Your task to perform on an android device: Open CNN.com Image 0: 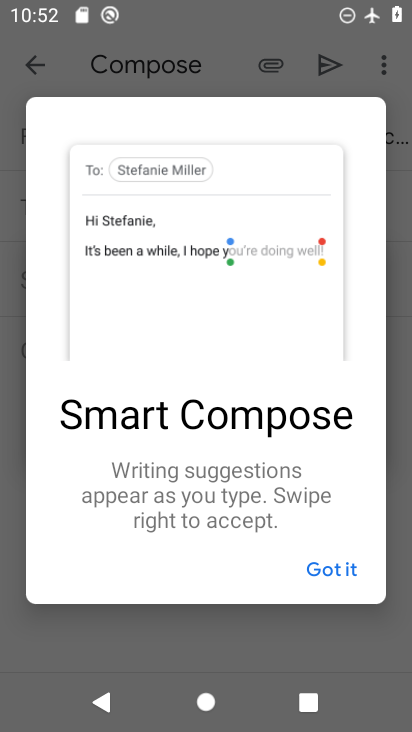
Step 0: press home button
Your task to perform on an android device: Open CNN.com Image 1: 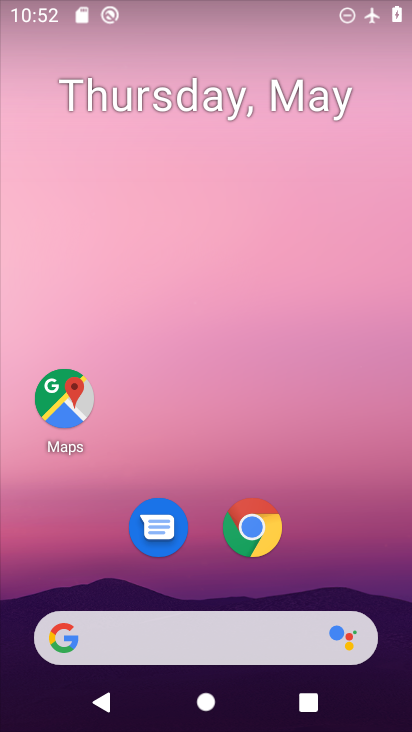
Step 1: click (259, 521)
Your task to perform on an android device: Open CNN.com Image 2: 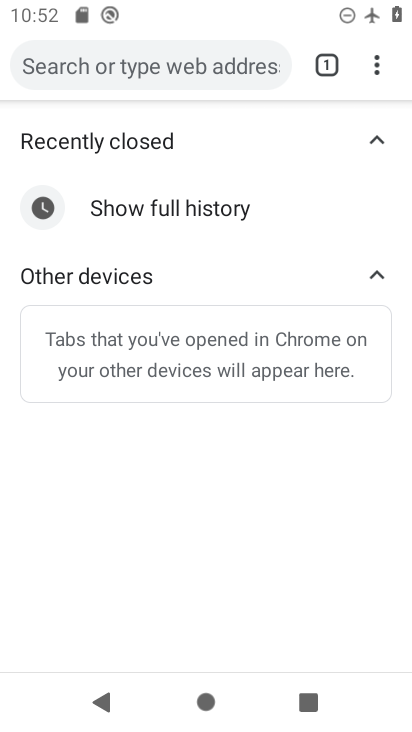
Step 2: click (240, 70)
Your task to perform on an android device: Open CNN.com Image 3: 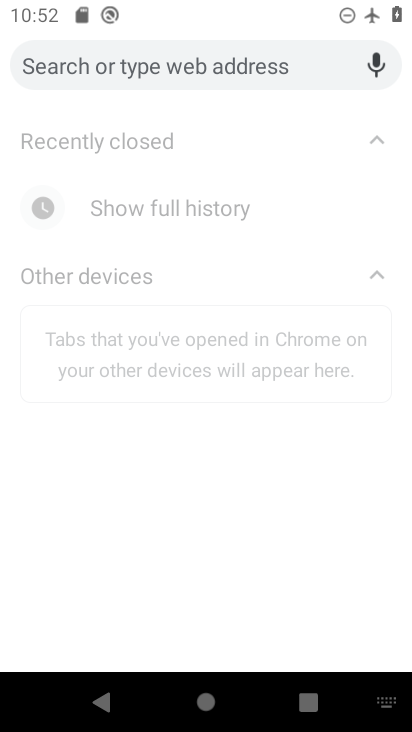
Step 3: type "cnn.com"
Your task to perform on an android device: Open CNN.com Image 4: 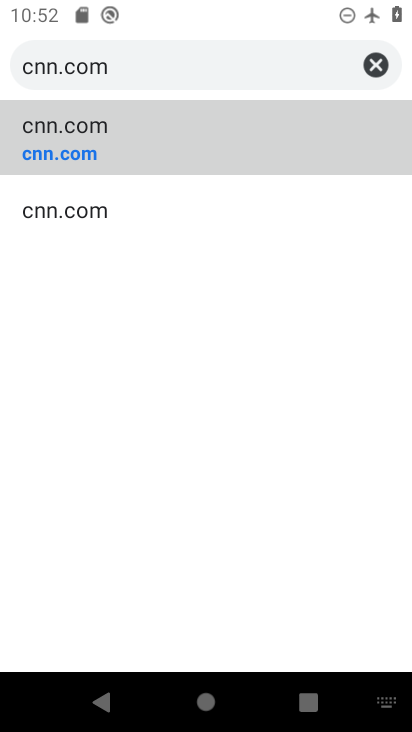
Step 4: click (59, 150)
Your task to perform on an android device: Open CNN.com Image 5: 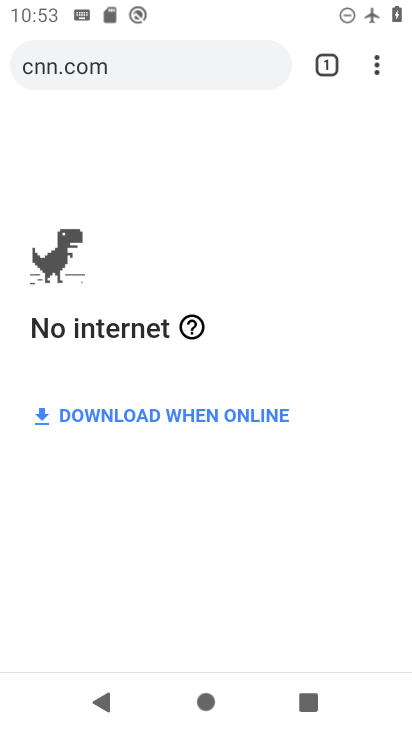
Step 5: task complete